Your task to perform on an android device: Open Youtube and go to the subscriptions tab Image 0: 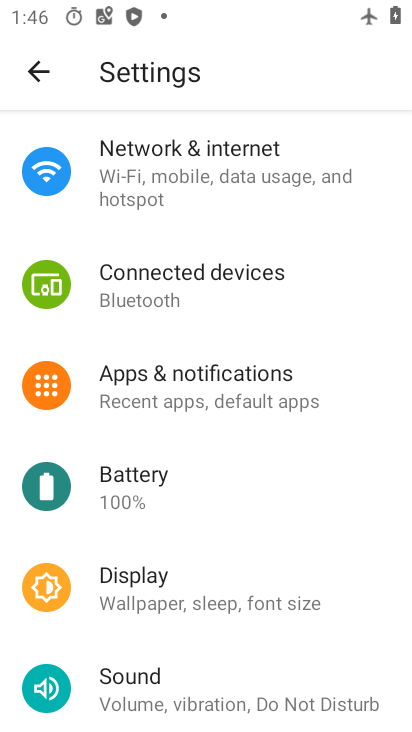
Step 0: press home button
Your task to perform on an android device: Open Youtube and go to the subscriptions tab Image 1: 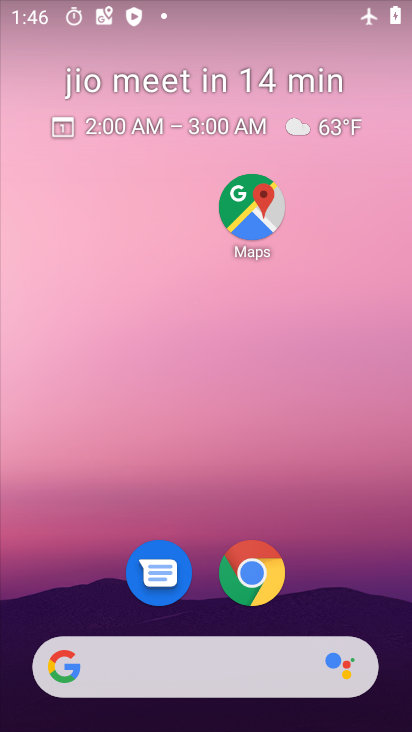
Step 1: drag from (221, 493) to (215, 61)
Your task to perform on an android device: Open Youtube and go to the subscriptions tab Image 2: 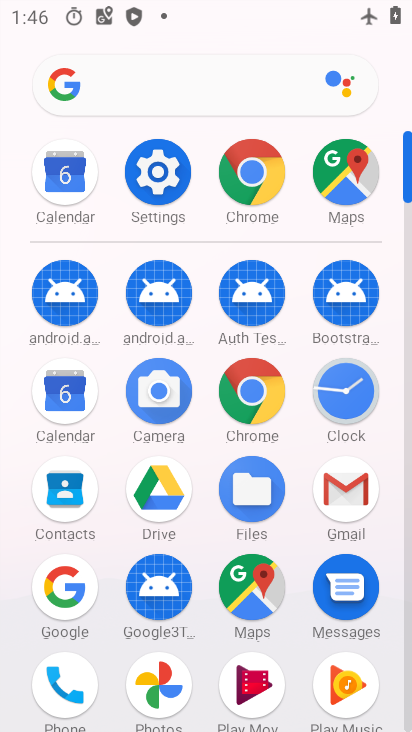
Step 2: drag from (201, 245) to (217, 35)
Your task to perform on an android device: Open Youtube and go to the subscriptions tab Image 3: 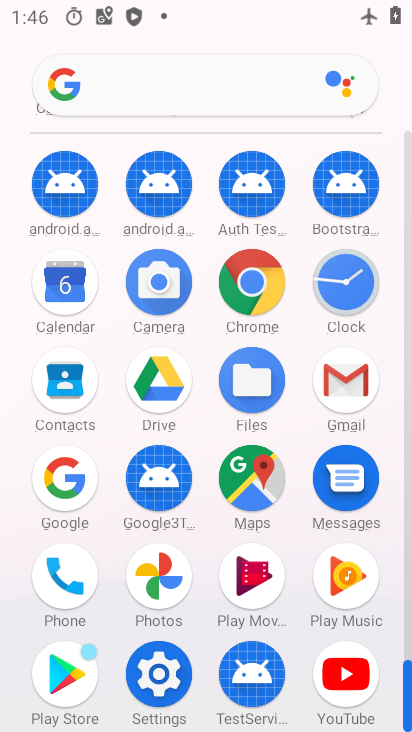
Step 3: click (333, 703)
Your task to perform on an android device: Open Youtube and go to the subscriptions tab Image 4: 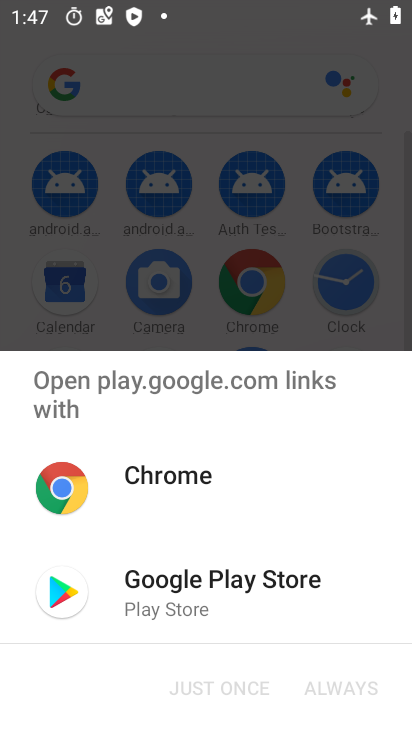
Step 4: click (214, 601)
Your task to perform on an android device: Open Youtube and go to the subscriptions tab Image 5: 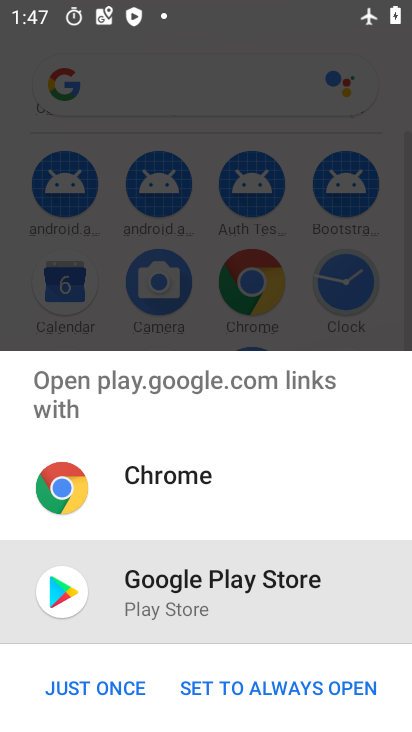
Step 5: click (70, 678)
Your task to perform on an android device: Open Youtube and go to the subscriptions tab Image 6: 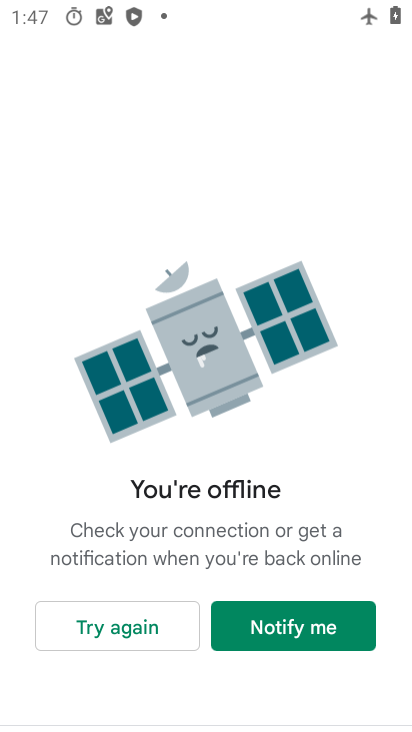
Step 6: task complete